Your task to perform on an android device: open app "VLC for Android" Image 0: 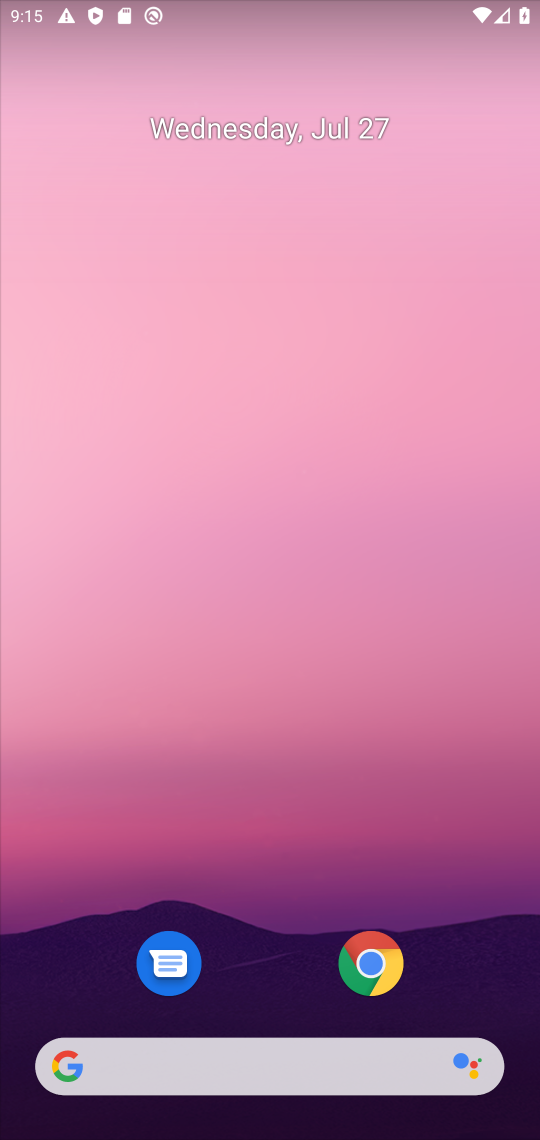
Step 0: drag from (273, 988) to (273, 163)
Your task to perform on an android device: open app "VLC for Android" Image 1: 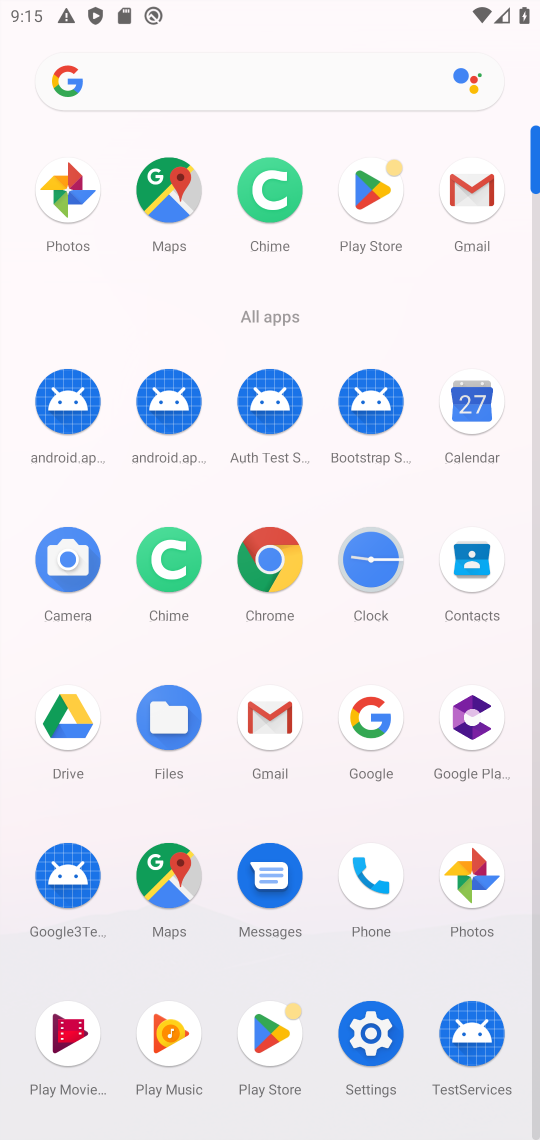
Step 1: click (379, 219)
Your task to perform on an android device: open app "VLC for Android" Image 2: 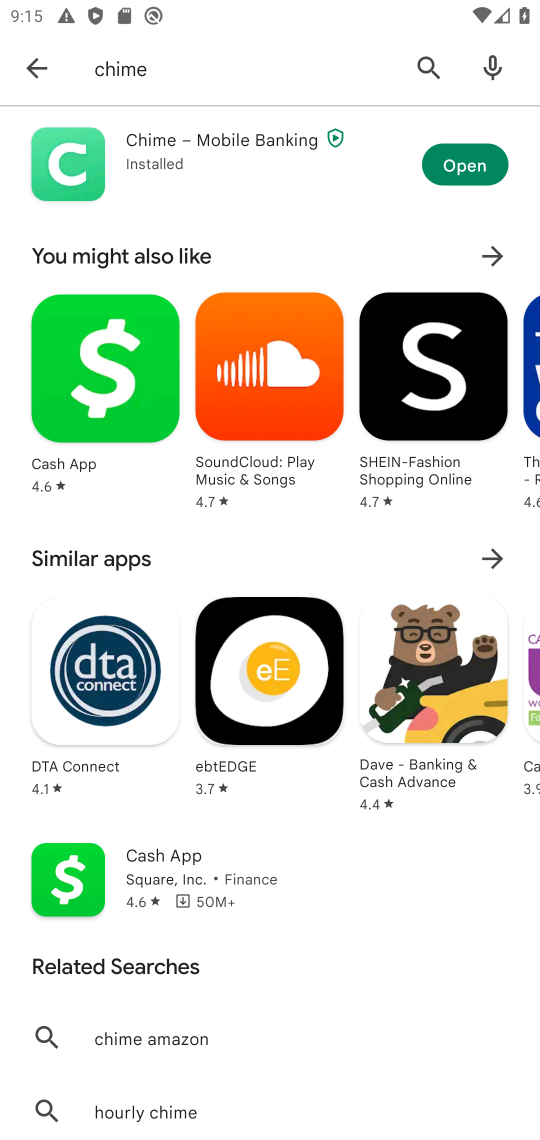
Step 2: click (415, 69)
Your task to perform on an android device: open app "VLC for Android" Image 3: 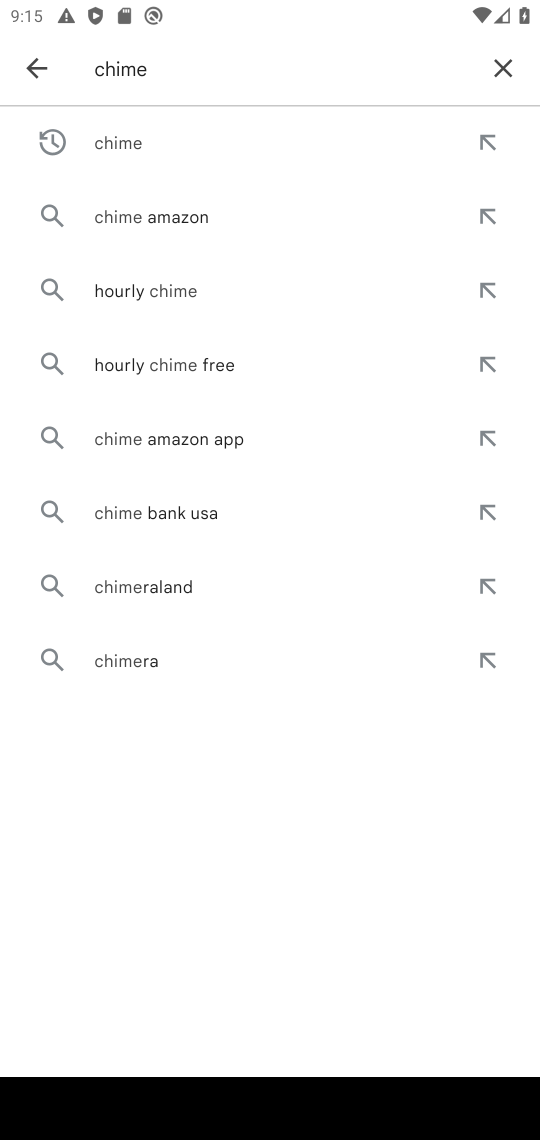
Step 3: click (497, 64)
Your task to perform on an android device: open app "VLC for Android" Image 4: 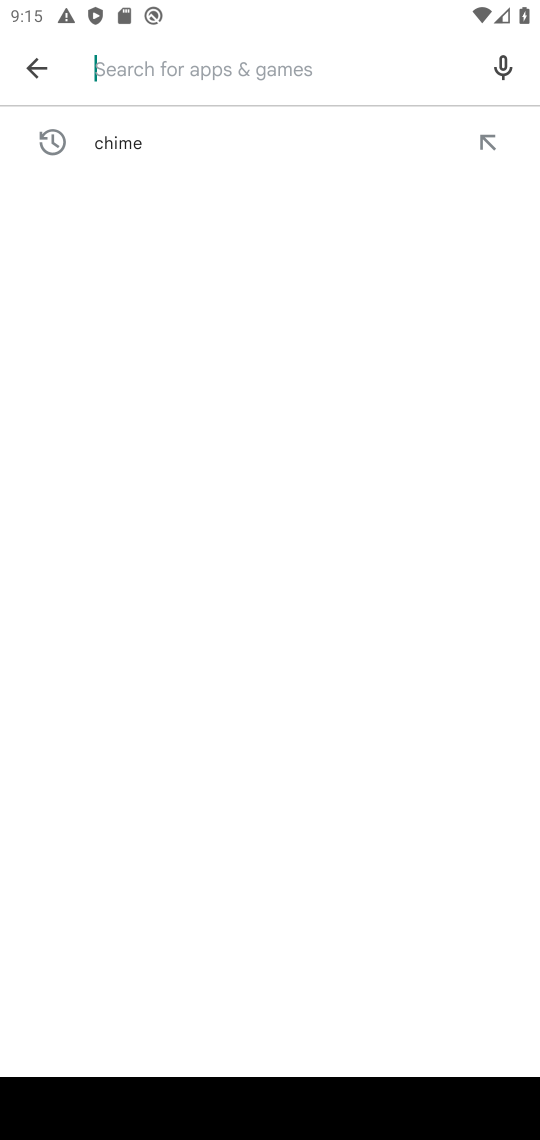
Step 4: type "vlc"
Your task to perform on an android device: open app "VLC for Android" Image 5: 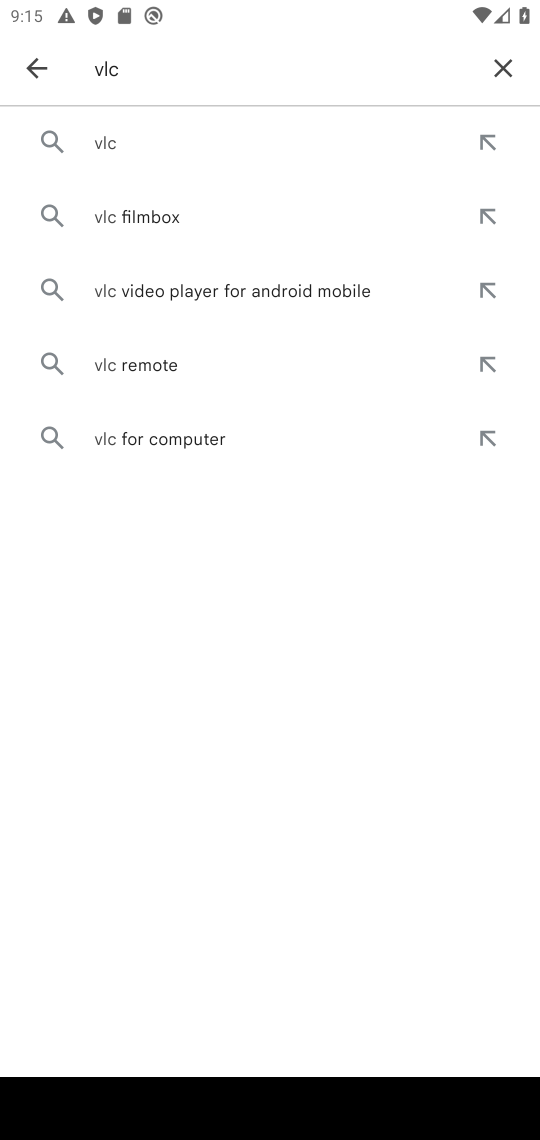
Step 5: click (171, 147)
Your task to perform on an android device: open app "VLC for Android" Image 6: 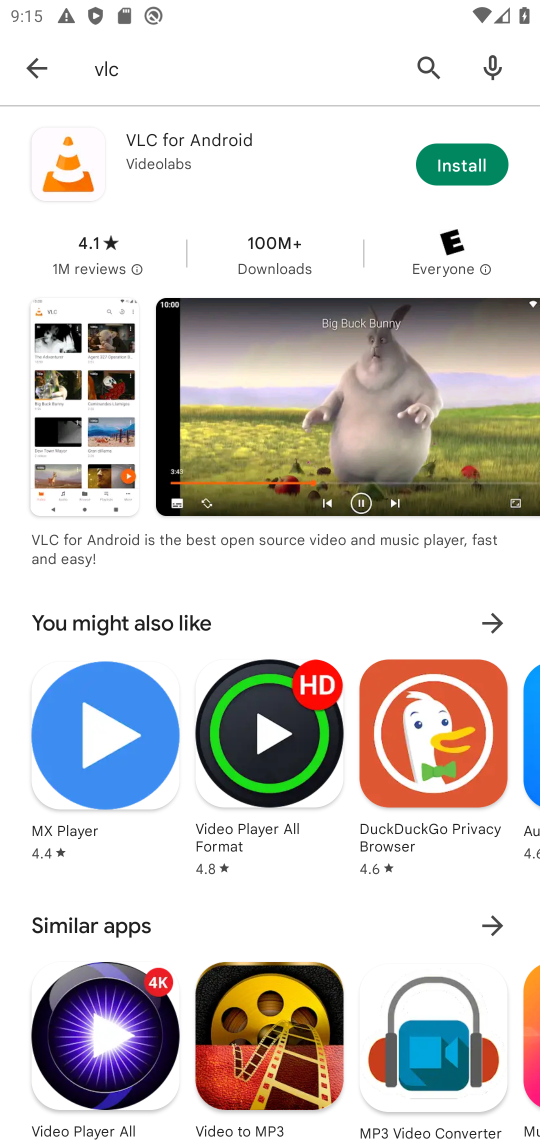
Step 6: click (449, 172)
Your task to perform on an android device: open app "VLC for Android" Image 7: 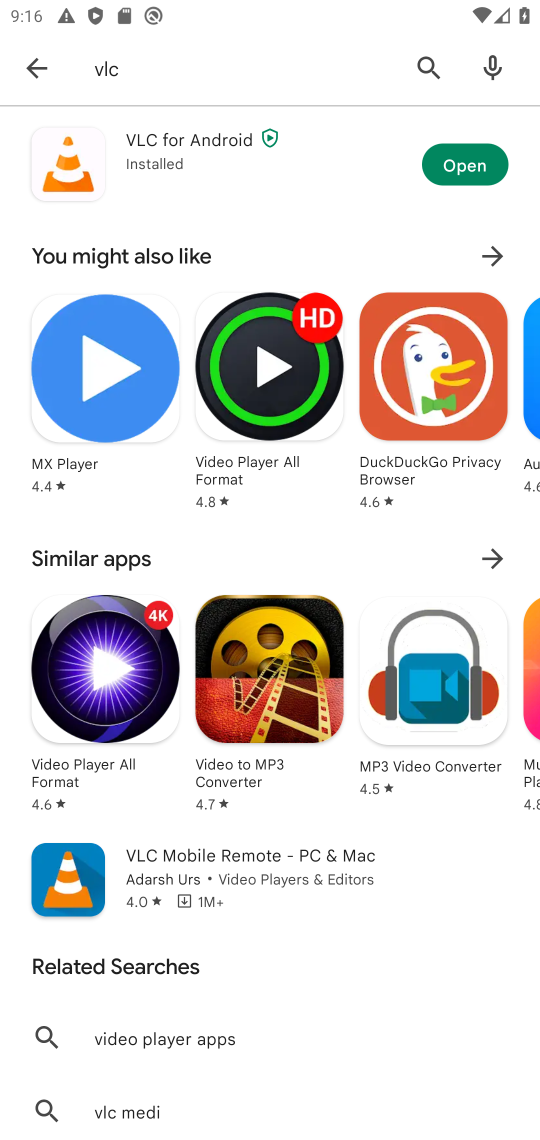
Step 7: click (438, 172)
Your task to perform on an android device: open app "VLC for Android" Image 8: 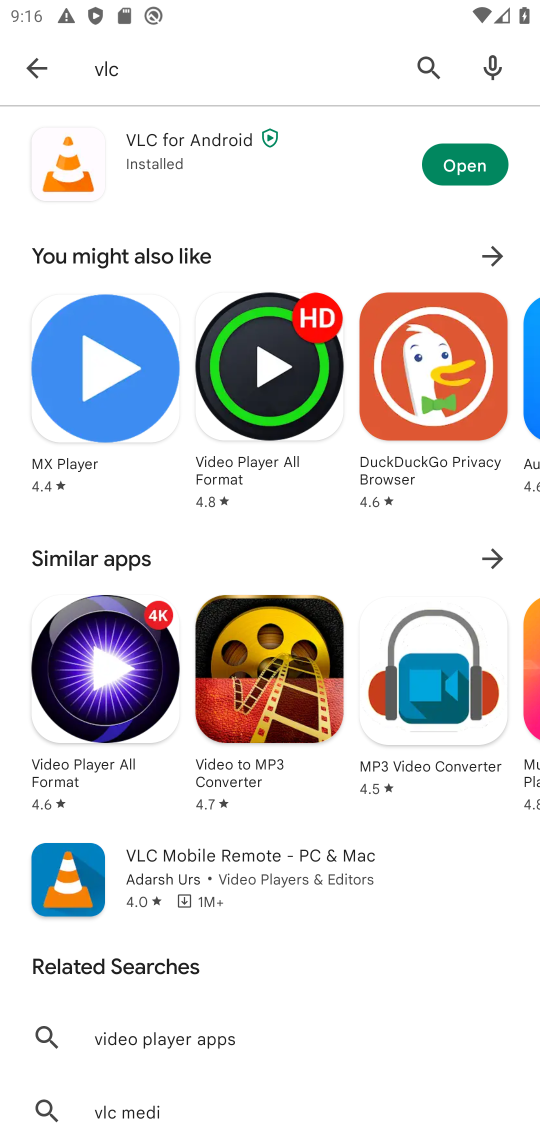
Step 8: task complete